Your task to perform on an android device: Open the stopwatch Image 0: 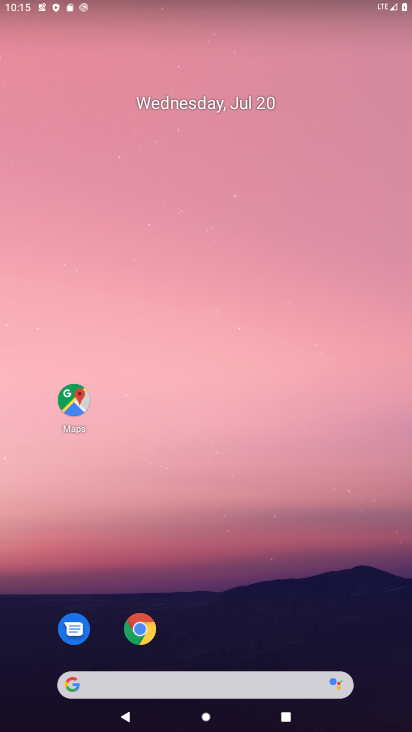
Step 0: press home button
Your task to perform on an android device: Open the stopwatch Image 1: 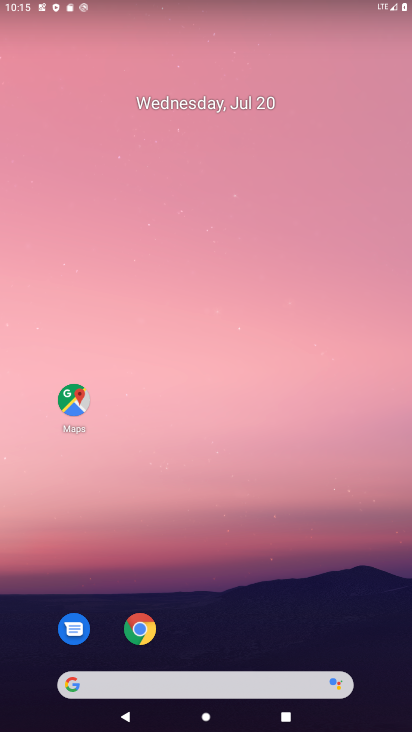
Step 1: drag from (306, 614) to (293, 19)
Your task to perform on an android device: Open the stopwatch Image 2: 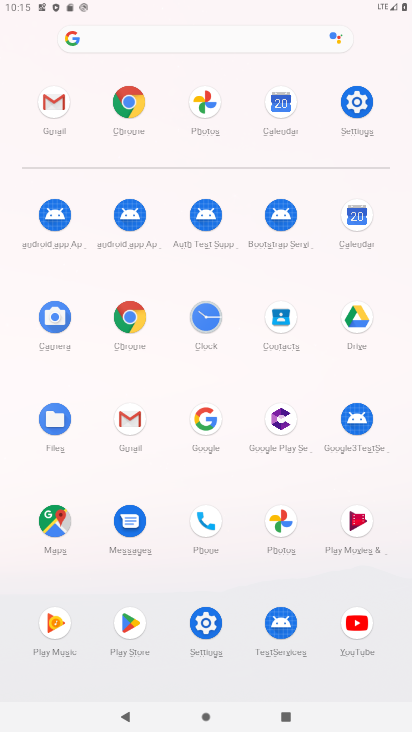
Step 2: click (211, 336)
Your task to perform on an android device: Open the stopwatch Image 3: 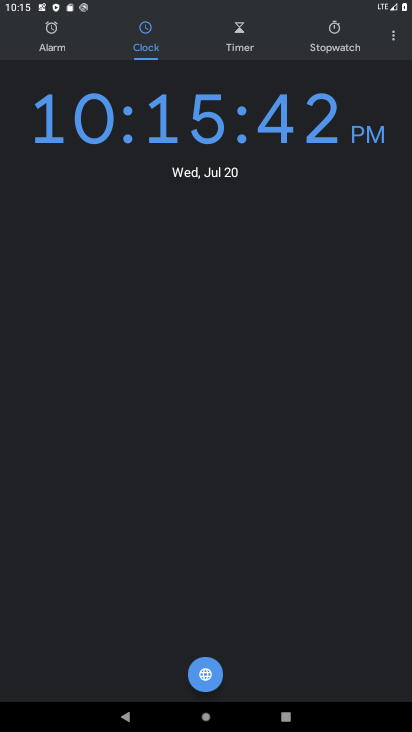
Step 3: click (324, 41)
Your task to perform on an android device: Open the stopwatch Image 4: 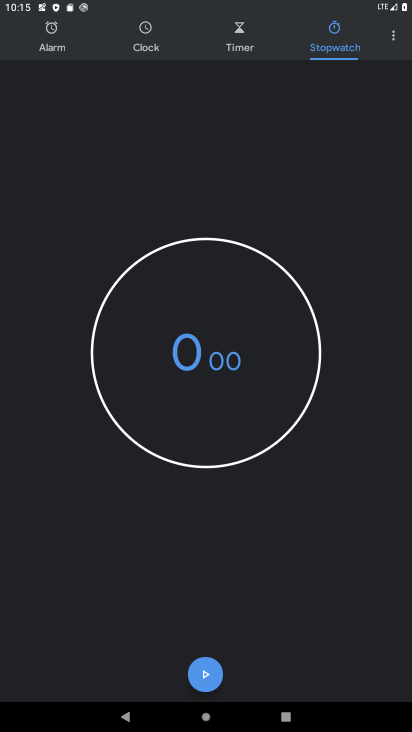
Step 4: click (394, 25)
Your task to perform on an android device: Open the stopwatch Image 5: 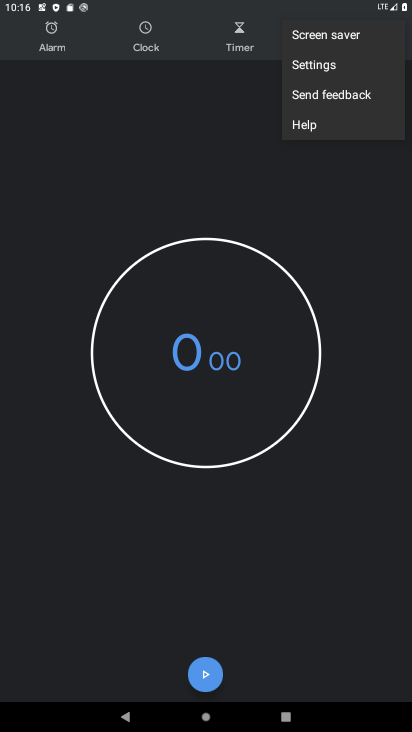
Step 5: click (119, 183)
Your task to perform on an android device: Open the stopwatch Image 6: 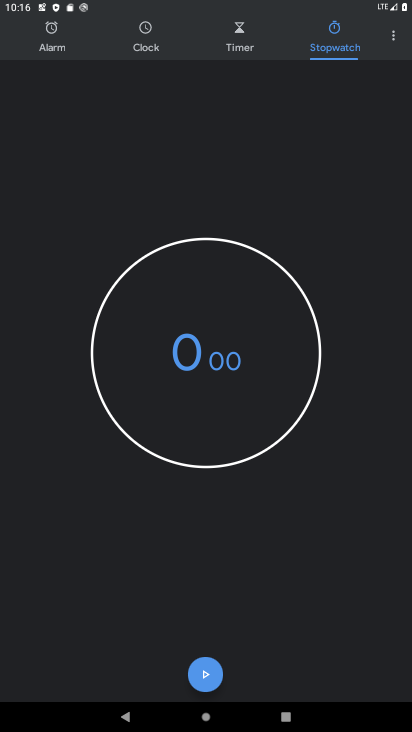
Step 6: task complete